Your task to perform on an android device: Go to Maps Image 0: 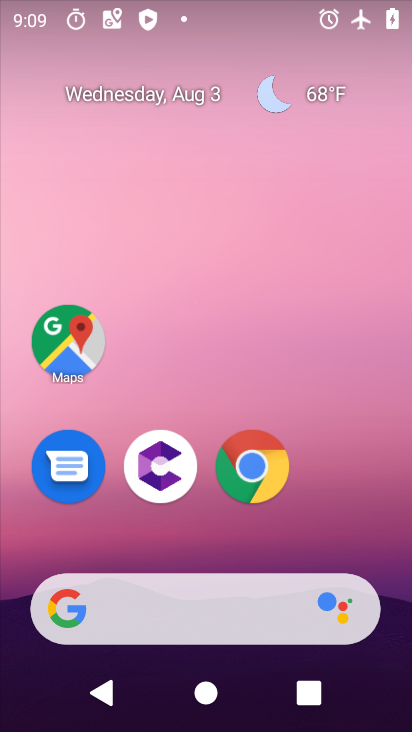
Step 0: drag from (349, 497) to (301, 116)
Your task to perform on an android device: Go to Maps Image 1: 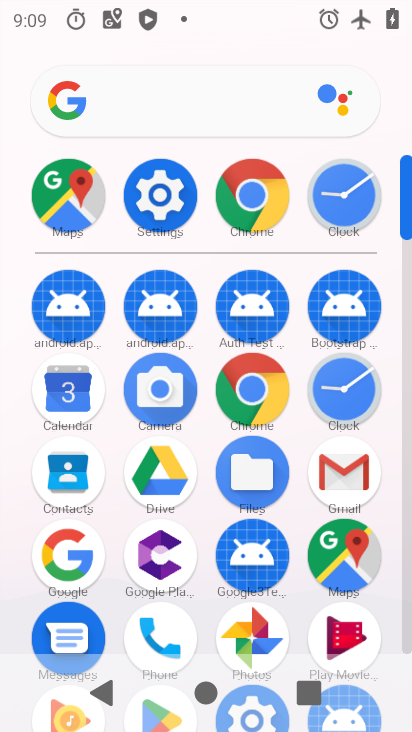
Step 1: click (349, 557)
Your task to perform on an android device: Go to Maps Image 2: 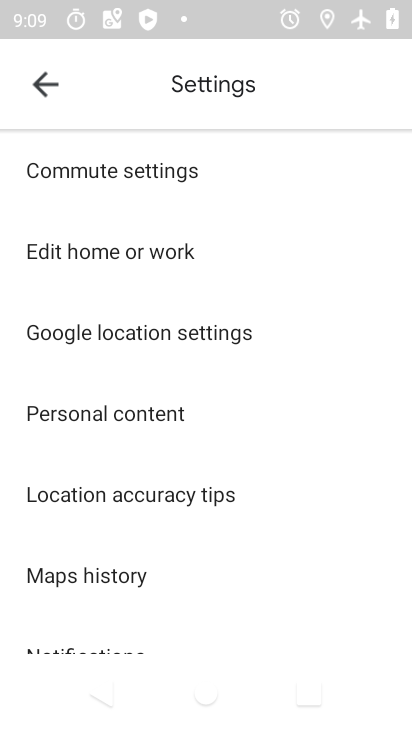
Step 2: task complete